Your task to perform on an android device: Go to network settings Image 0: 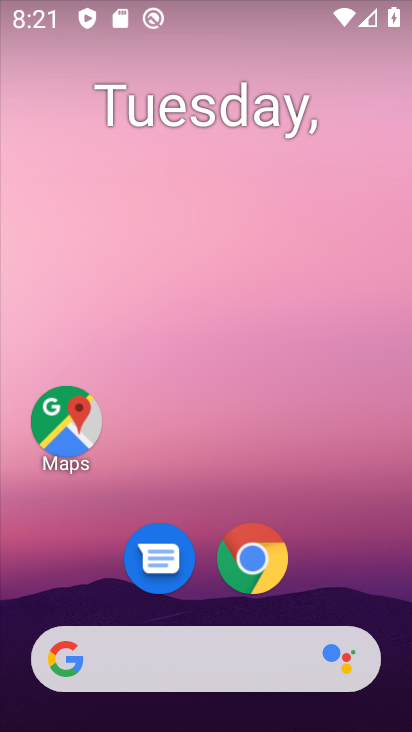
Step 0: drag from (217, 605) to (219, 215)
Your task to perform on an android device: Go to network settings Image 1: 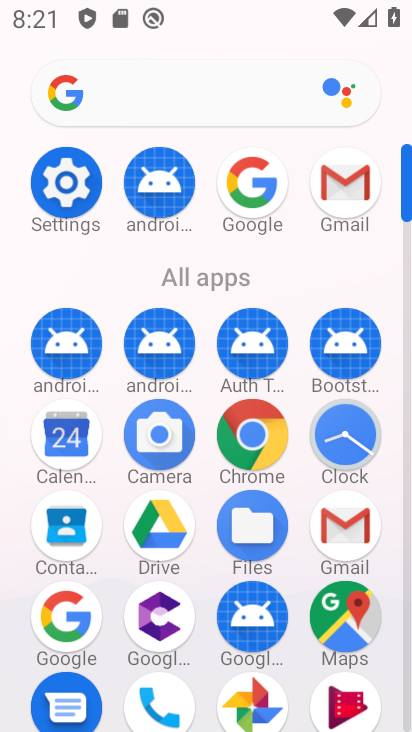
Step 1: click (66, 191)
Your task to perform on an android device: Go to network settings Image 2: 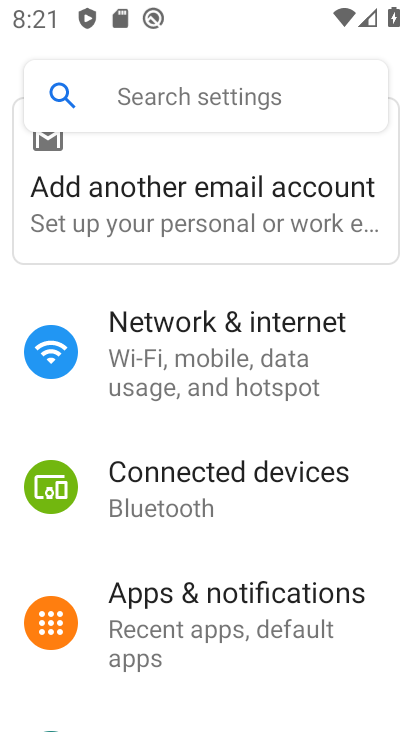
Step 2: click (179, 339)
Your task to perform on an android device: Go to network settings Image 3: 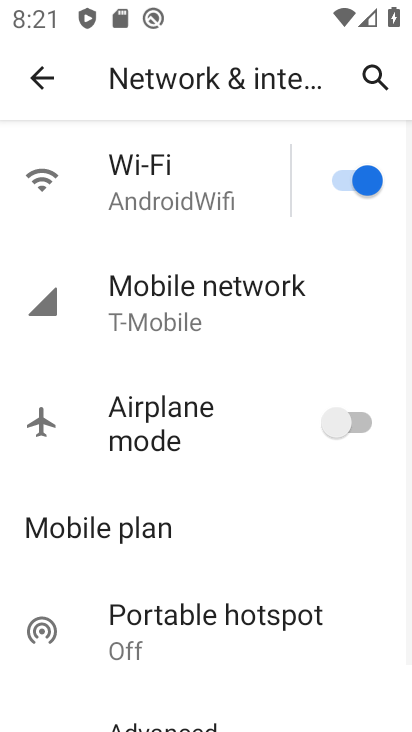
Step 3: drag from (191, 584) to (218, 247)
Your task to perform on an android device: Go to network settings Image 4: 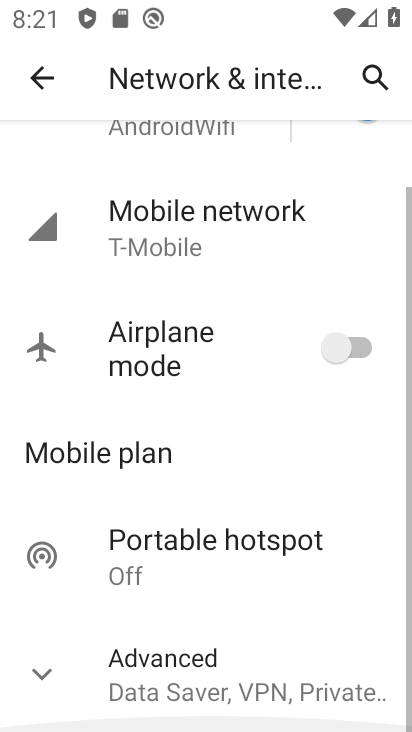
Step 4: drag from (230, 534) to (252, 223)
Your task to perform on an android device: Go to network settings Image 5: 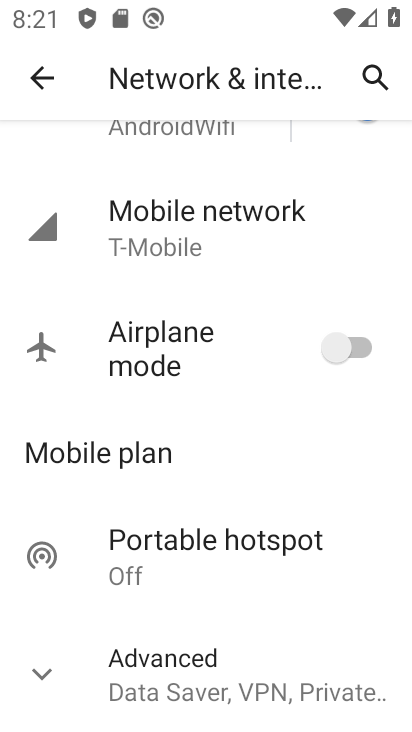
Step 5: click (45, 680)
Your task to perform on an android device: Go to network settings Image 6: 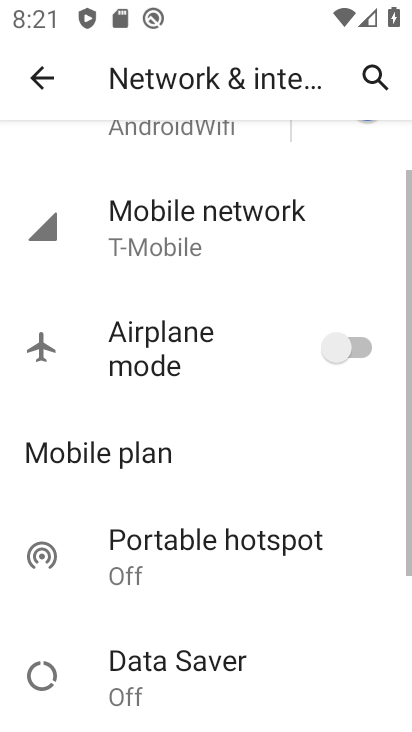
Step 6: task complete